Your task to perform on an android device: toggle sleep mode Image 0: 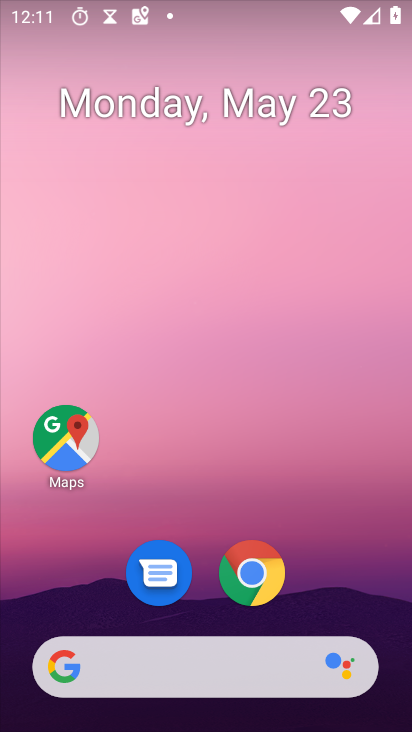
Step 0: drag from (200, 661) to (311, 135)
Your task to perform on an android device: toggle sleep mode Image 1: 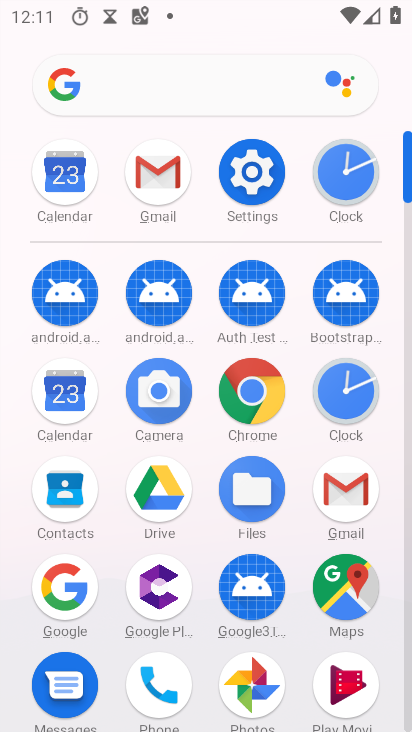
Step 1: click (260, 177)
Your task to perform on an android device: toggle sleep mode Image 2: 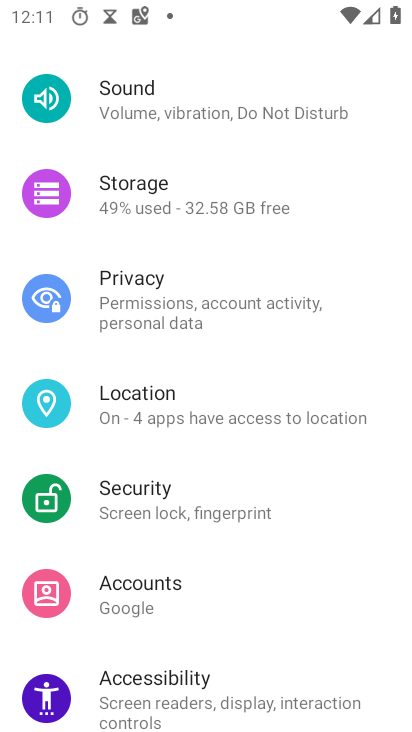
Step 2: drag from (323, 188) to (295, 576)
Your task to perform on an android device: toggle sleep mode Image 3: 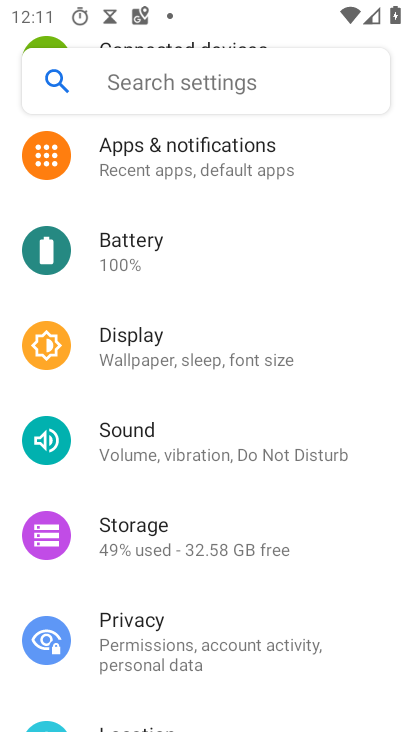
Step 3: drag from (310, 264) to (312, 404)
Your task to perform on an android device: toggle sleep mode Image 4: 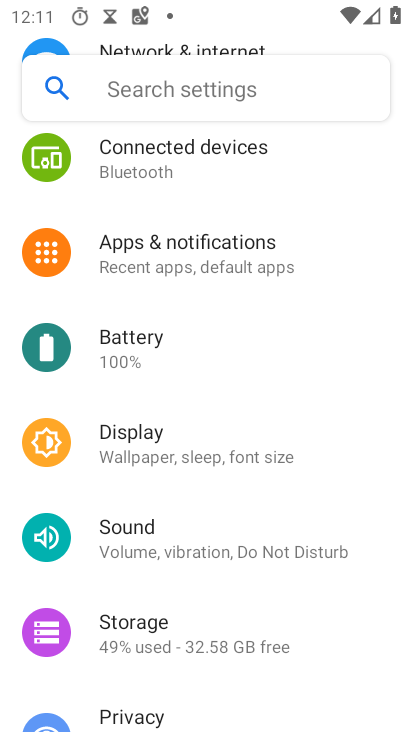
Step 4: click (218, 420)
Your task to perform on an android device: toggle sleep mode Image 5: 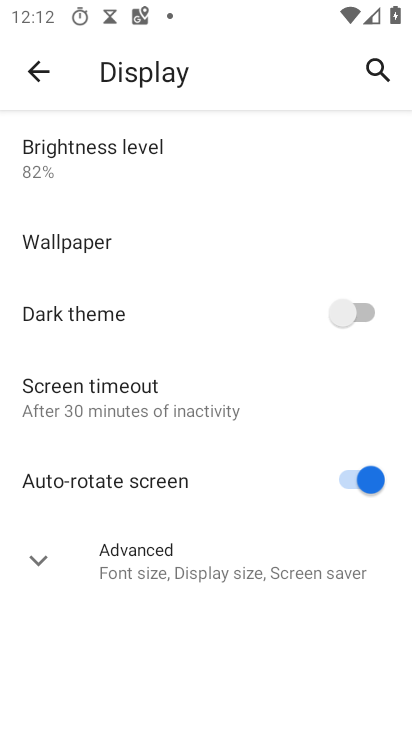
Step 5: task complete